Your task to perform on an android device: Open settings on Google Maps Image 0: 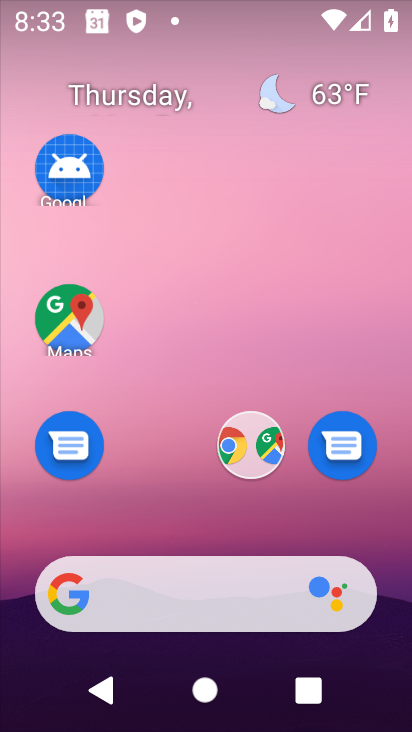
Step 0: drag from (206, 534) to (185, 56)
Your task to perform on an android device: Open settings on Google Maps Image 1: 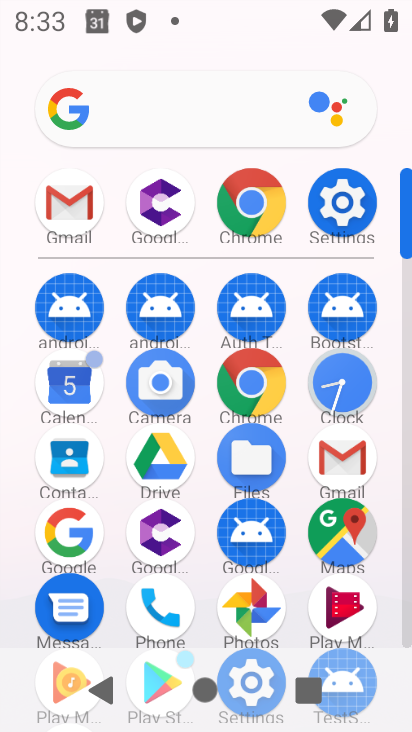
Step 1: click (334, 187)
Your task to perform on an android device: Open settings on Google Maps Image 2: 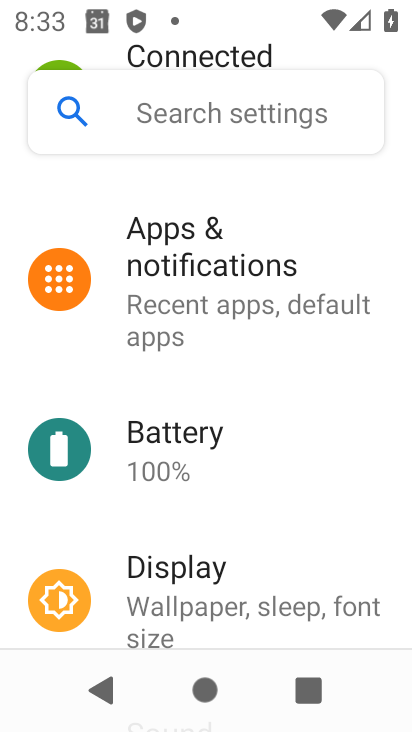
Step 2: press home button
Your task to perform on an android device: Open settings on Google Maps Image 3: 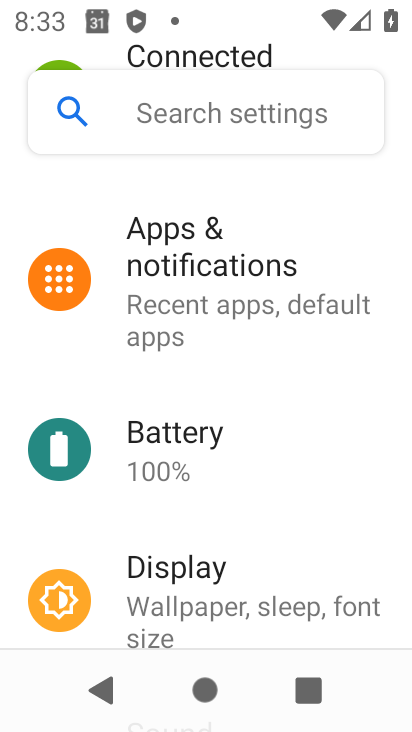
Step 3: press home button
Your task to perform on an android device: Open settings on Google Maps Image 4: 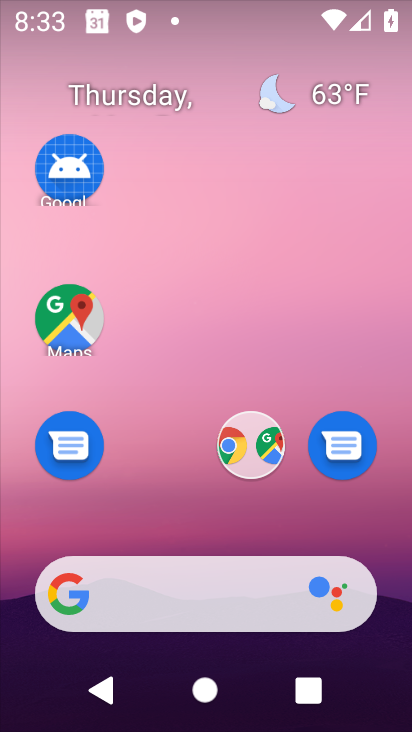
Step 4: click (61, 309)
Your task to perform on an android device: Open settings on Google Maps Image 5: 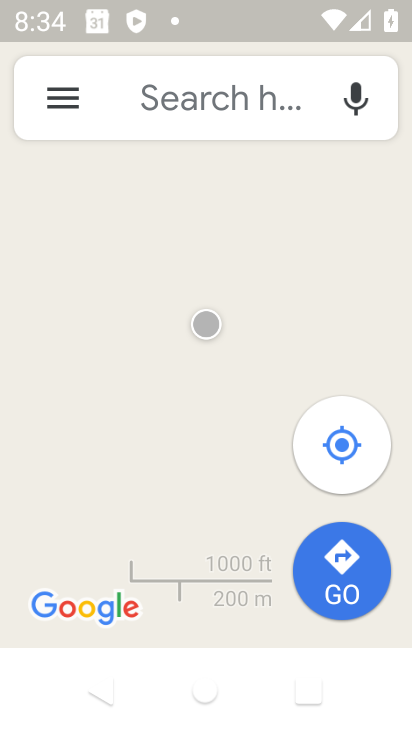
Step 5: click (65, 95)
Your task to perform on an android device: Open settings on Google Maps Image 6: 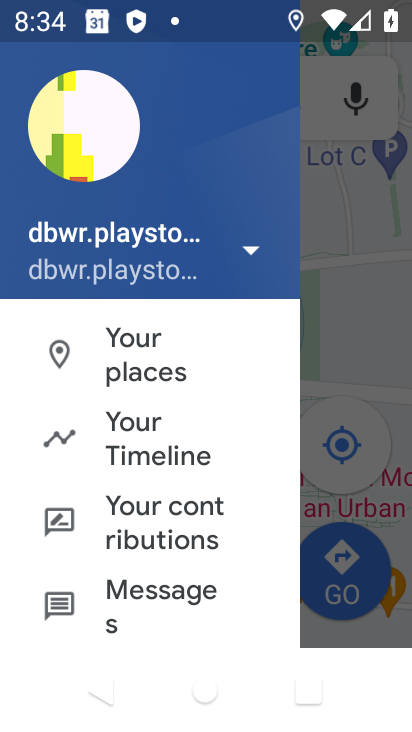
Step 6: drag from (170, 547) to (98, 146)
Your task to perform on an android device: Open settings on Google Maps Image 7: 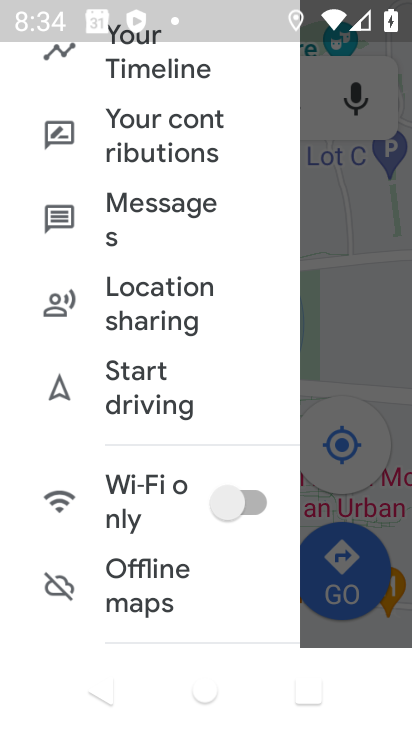
Step 7: drag from (154, 504) to (64, 32)
Your task to perform on an android device: Open settings on Google Maps Image 8: 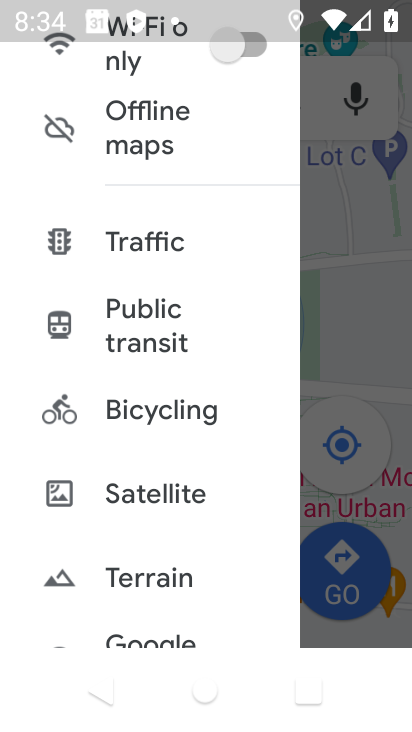
Step 8: drag from (218, 550) to (135, 137)
Your task to perform on an android device: Open settings on Google Maps Image 9: 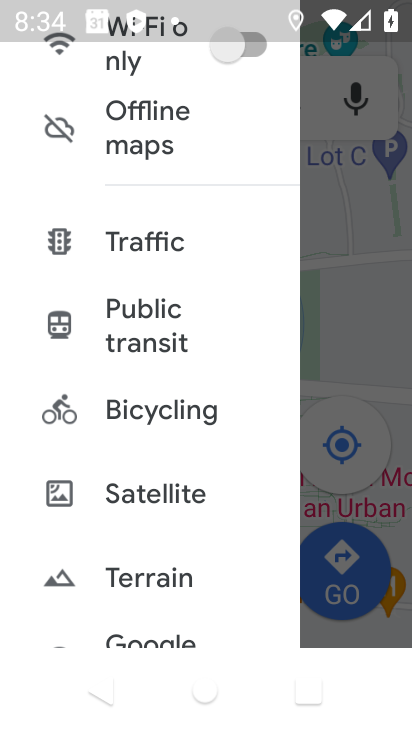
Step 9: drag from (161, 516) to (153, 77)
Your task to perform on an android device: Open settings on Google Maps Image 10: 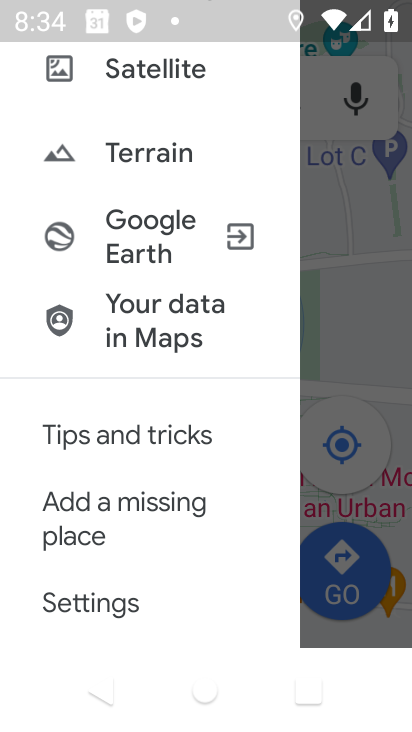
Step 10: click (90, 597)
Your task to perform on an android device: Open settings on Google Maps Image 11: 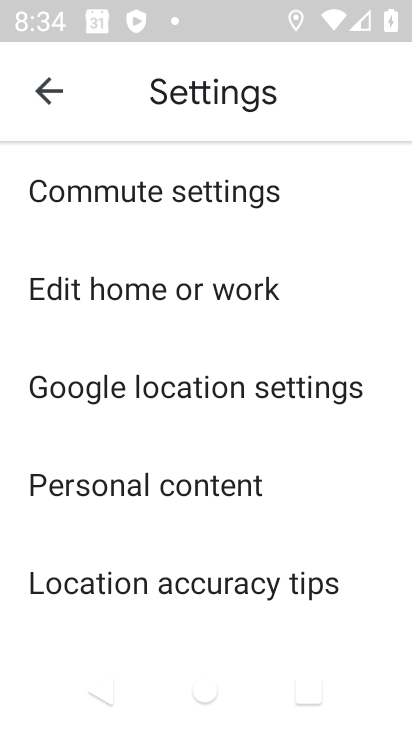
Step 11: task complete